Your task to perform on an android device: Find coffee shops on Maps Image 0: 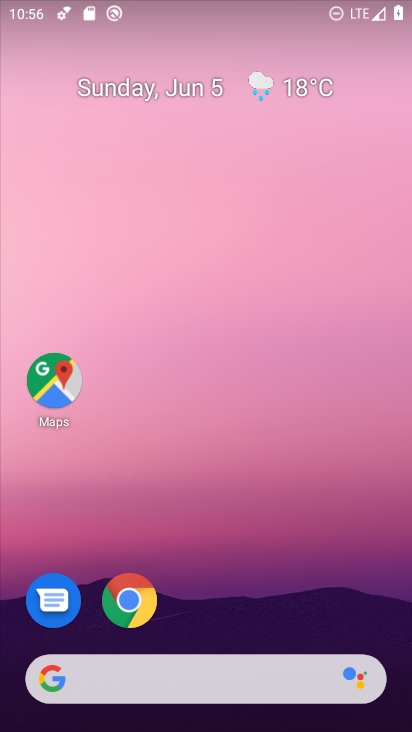
Step 0: click (52, 397)
Your task to perform on an android device: Find coffee shops on Maps Image 1: 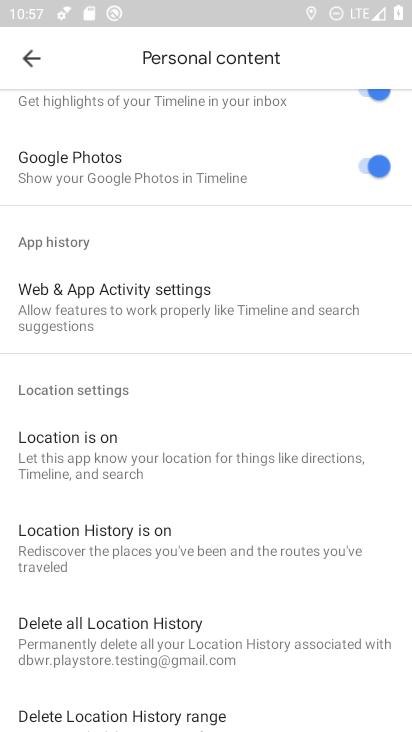
Step 1: click (37, 54)
Your task to perform on an android device: Find coffee shops on Maps Image 2: 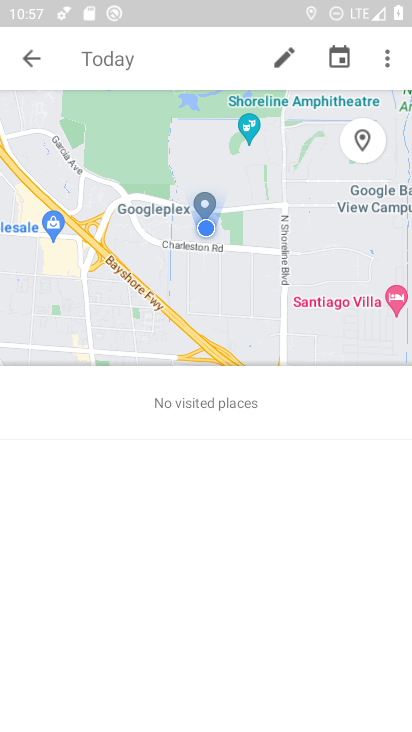
Step 2: click (32, 55)
Your task to perform on an android device: Find coffee shops on Maps Image 3: 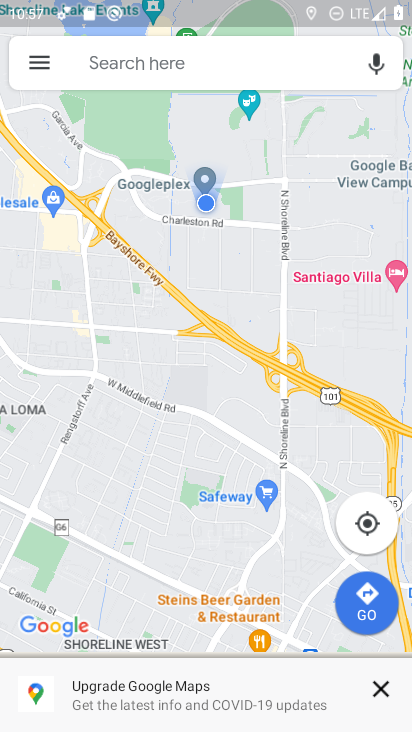
Step 3: click (122, 63)
Your task to perform on an android device: Find coffee shops on Maps Image 4: 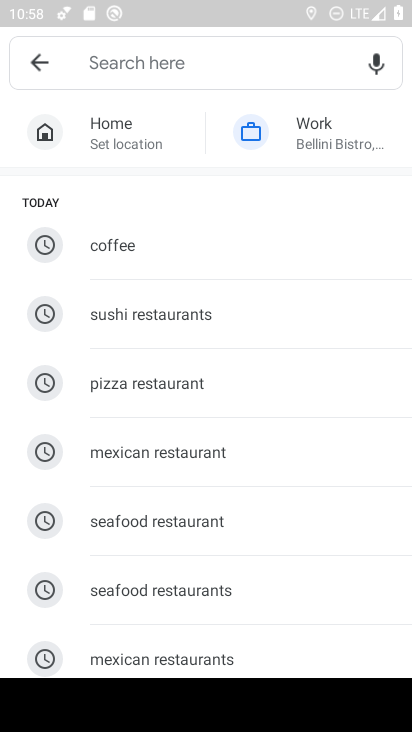
Step 4: type "coffee shops"
Your task to perform on an android device: Find coffee shops on Maps Image 5: 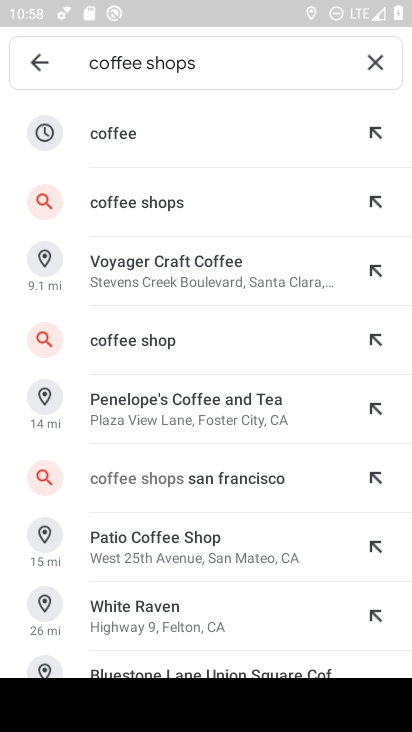
Step 5: click (175, 223)
Your task to perform on an android device: Find coffee shops on Maps Image 6: 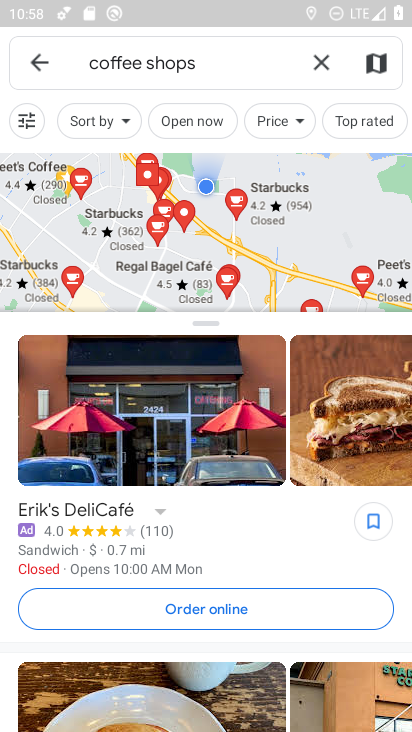
Step 6: task complete